Your task to perform on an android device: Open Chrome and go to settings Image 0: 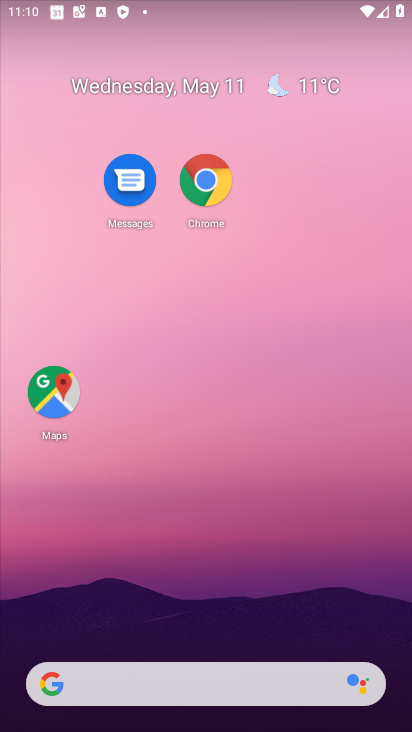
Step 0: drag from (307, 578) to (335, 179)
Your task to perform on an android device: Open Chrome and go to settings Image 1: 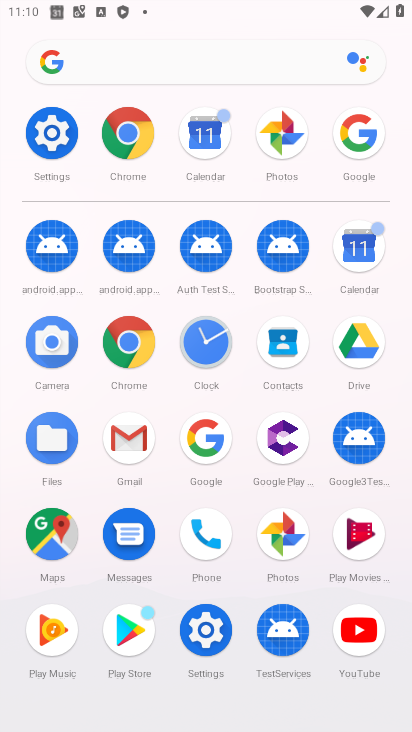
Step 1: click (207, 628)
Your task to perform on an android device: Open Chrome and go to settings Image 2: 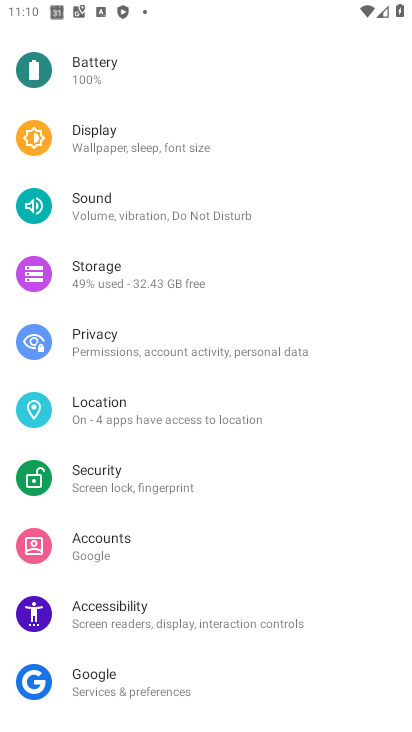
Step 2: press home button
Your task to perform on an android device: Open Chrome and go to settings Image 3: 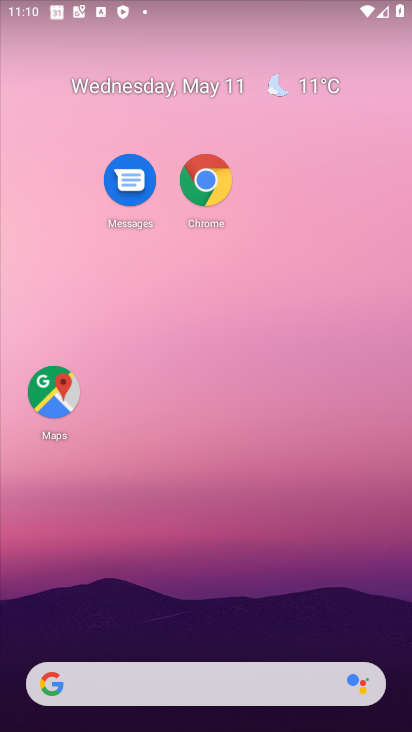
Step 3: drag from (217, 558) to (304, 177)
Your task to perform on an android device: Open Chrome and go to settings Image 4: 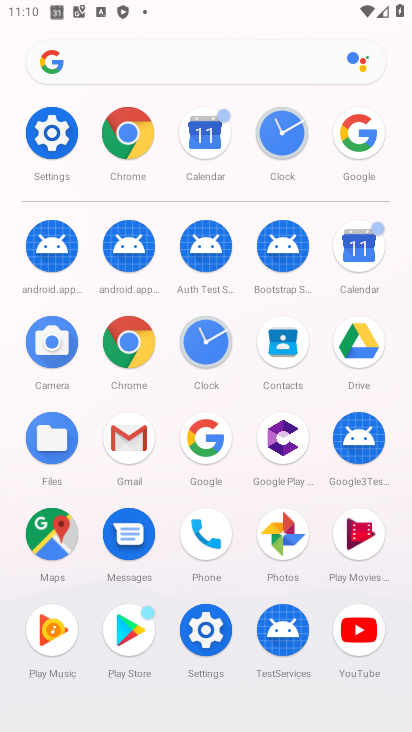
Step 4: click (134, 361)
Your task to perform on an android device: Open Chrome and go to settings Image 5: 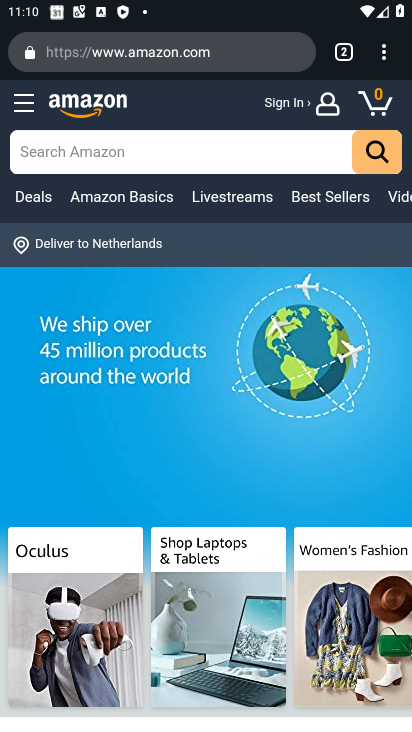
Step 5: click (381, 53)
Your task to perform on an android device: Open Chrome and go to settings Image 6: 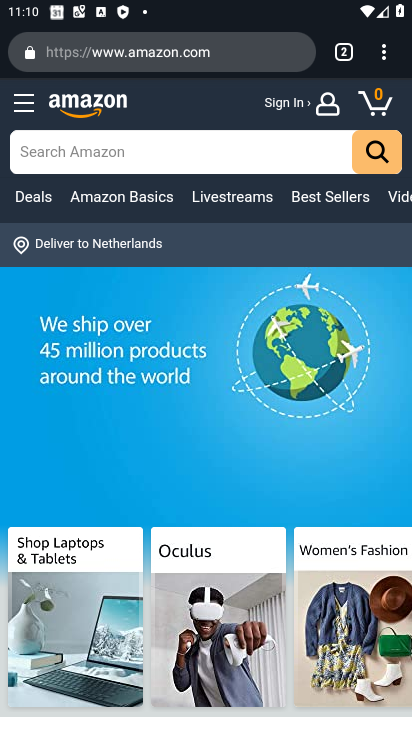
Step 6: click (388, 53)
Your task to perform on an android device: Open Chrome and go to settings Image 7: 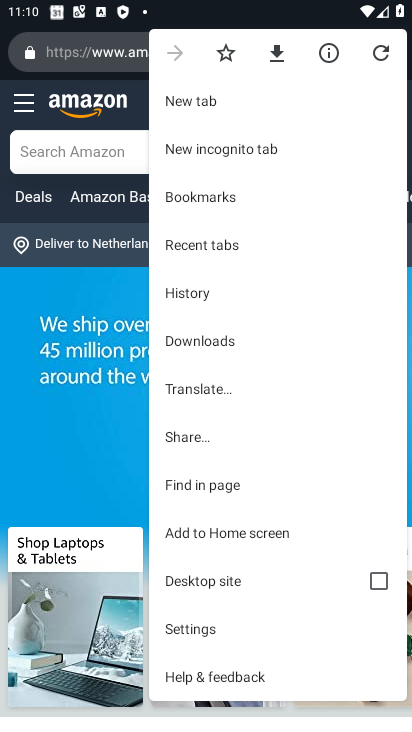
Step 7: click (255, 520)
Your task to perform on an android device: Open Chrome and go to settings Image 8: 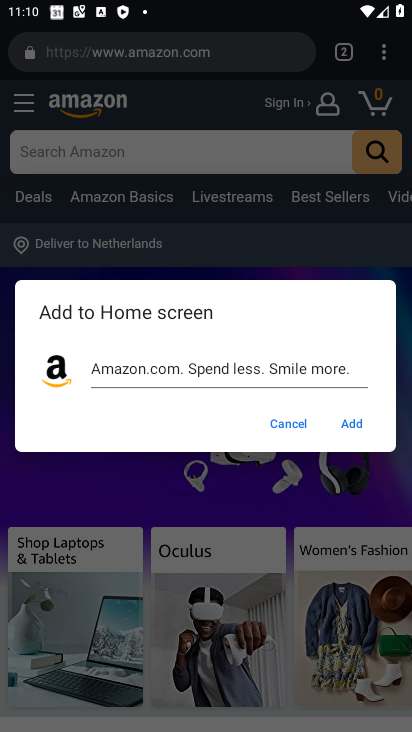
Step 8: click (305, 420)
Your task to perform on an android device: Open Chrome and go to settings Image 9: 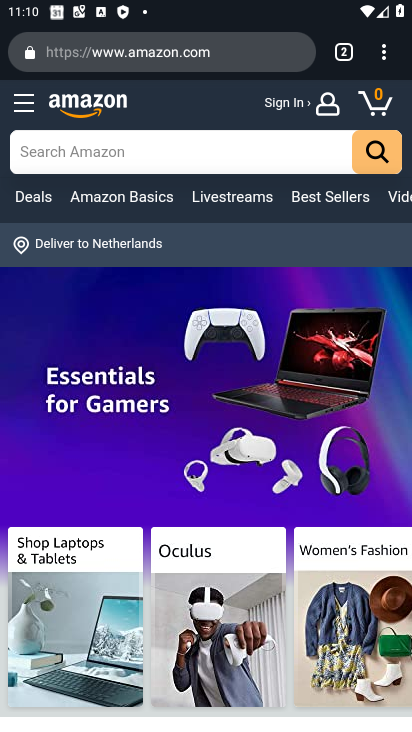
Step 9: click (393, 59)
Your task to perform on an android device: Open Chrome and go to settings Image 10: 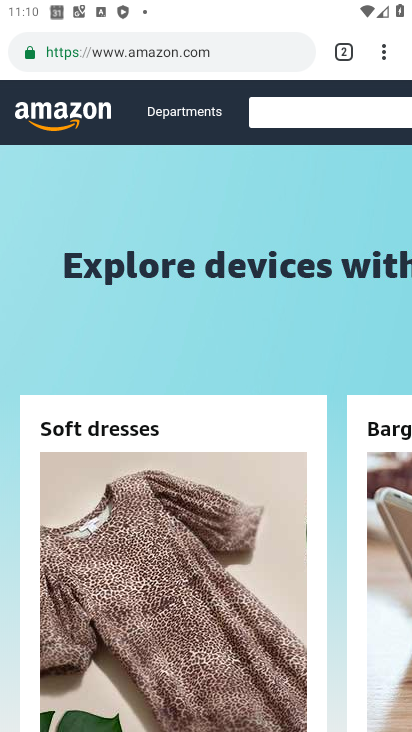
Step 10: click (386, 53)
Your task to perform on an android device: Open Chrome and go to settings Image 11: 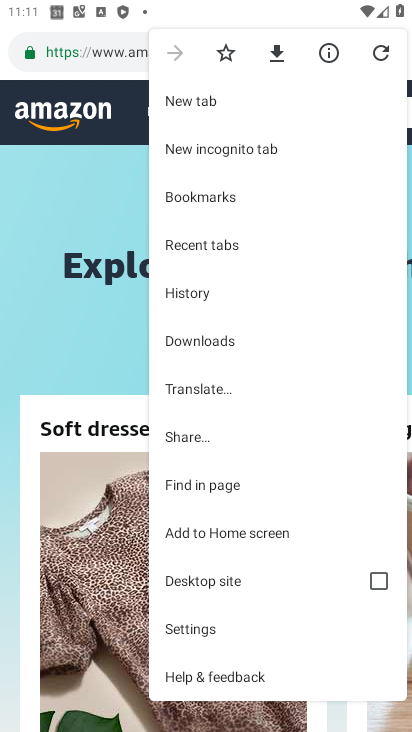
Step 11: click (218, 631)
Your task to perform on an android device: Open Chrome and go to settings Image 12: 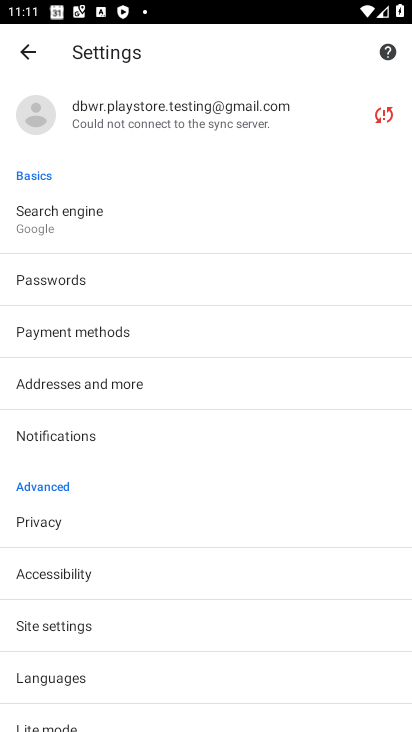
Step 12: click (235, 625)
Your task to perform on an android device: Open Chrome and go to settings Image 13: 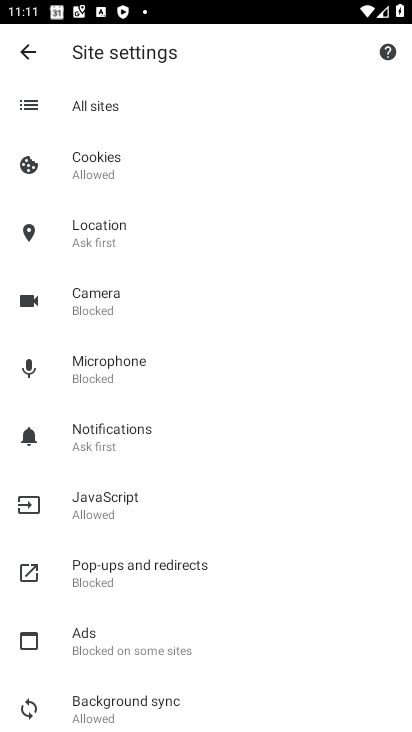
Step 13: task complete